Your task to perform on an android device: Show me popular games on the Play Store Image 0: 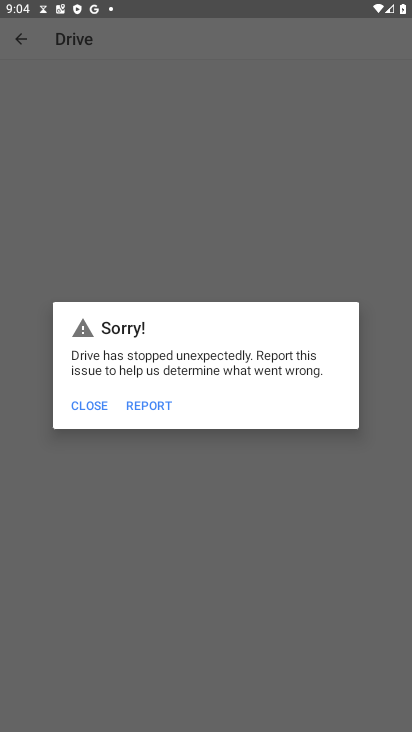
Step 0: press home button
Your task to perform on an android device: Show me popular games on the Play Store Image 1: 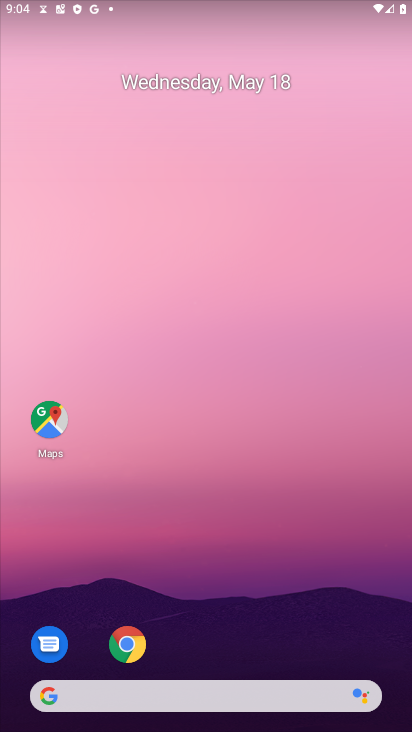
Step 1: drag from (221, 610) to (169, 25)
Your task to perform on an android device: Show me popular games on the Play Store Image 2: 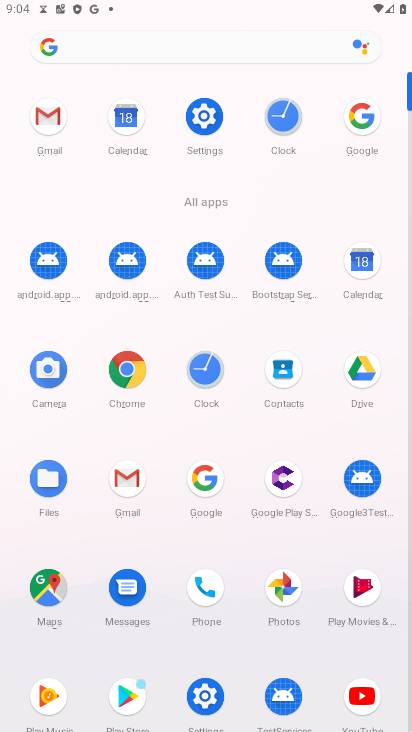
Step 2: drag from (157, 494) to (163, 326)
Your task to perform on an android device: Show me popular games on the Play Store Image 3: 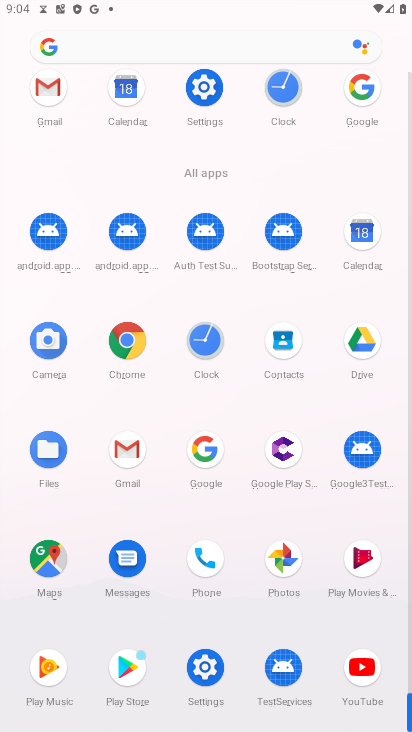
Step 3: click (130, 668)
Your task to perform on an android device: Show me popular games on the Play Store Image 4: 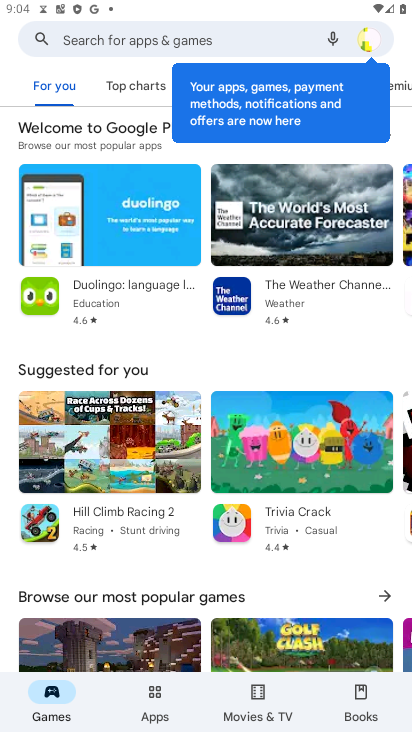
Step 4: click (154, 686)
Your task to perform on an android device: Show me popular games on the Play Store Image 5: 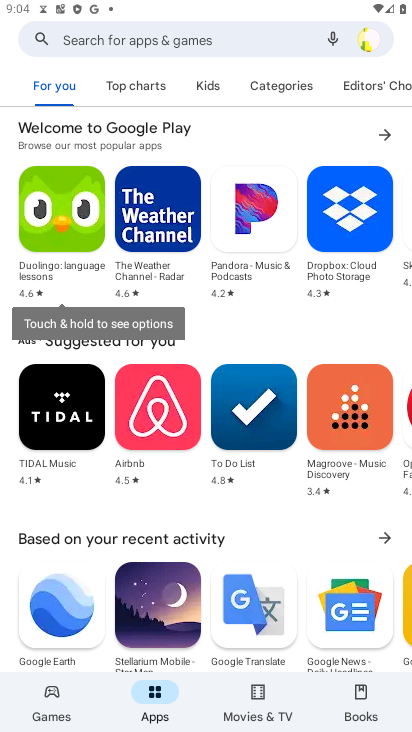
Step 5: click (299, 90)
Your task to perform on an android device: Show me popular games on the Play Store Image 6: 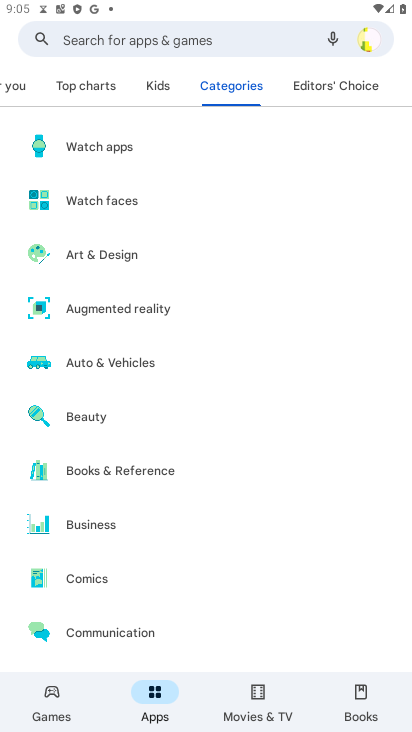
Step 6: click (191, 46)
Your task to perform on an android device: Show me popular games on the Play Store Image 7: 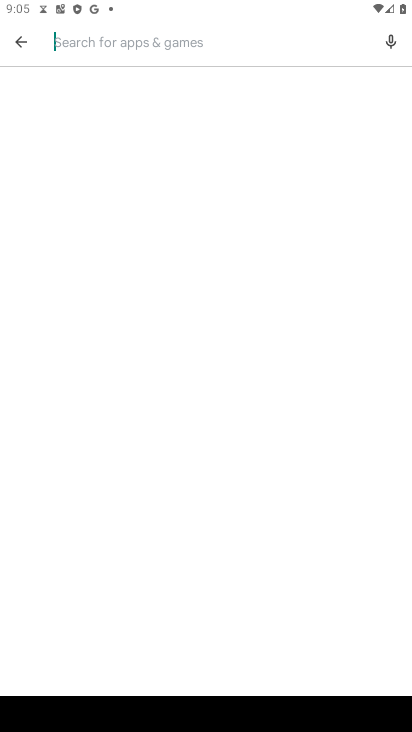
Step 7: type "popular games"
Your task to perform on an android device: Show me popular games on the Play Store Image 8: 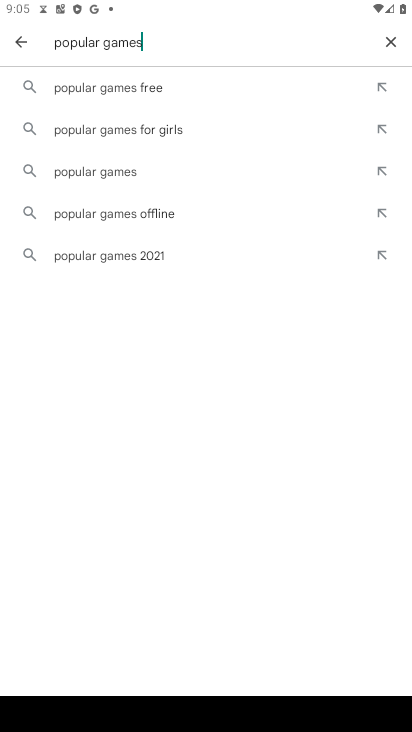
Step 8: click (85, 164)
Your task to perform on an android device: Show me popular games on the Play Store Image 9: 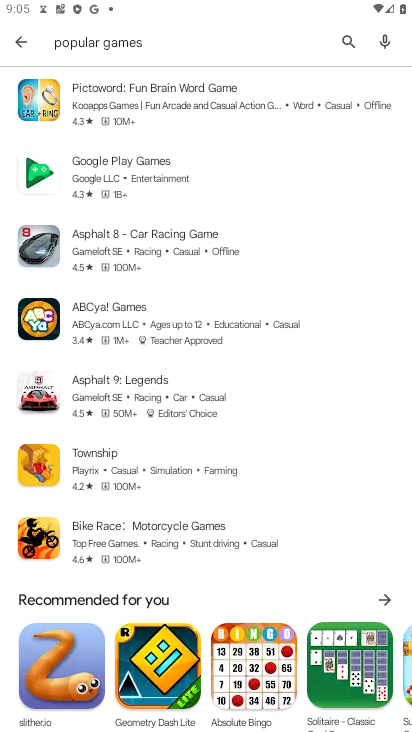
Step 9: task complete